Your task to perform on an android device: Open Reddit.com Image 0: 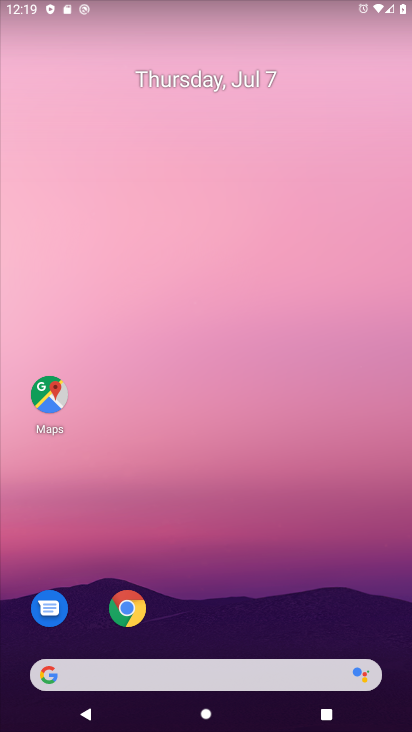
Step 0: click (133, 607)
Your task to perform on an android device: Open Reddit.com Image 1: 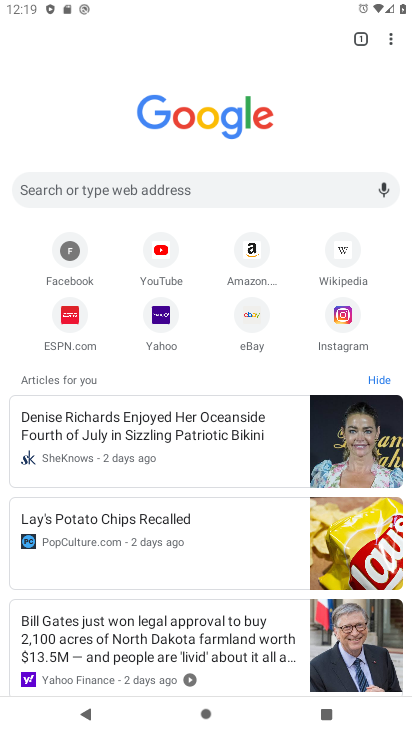
Step 1: click (157, 189)
Your task to perform on an android device: Open Reddit.com Image 2: 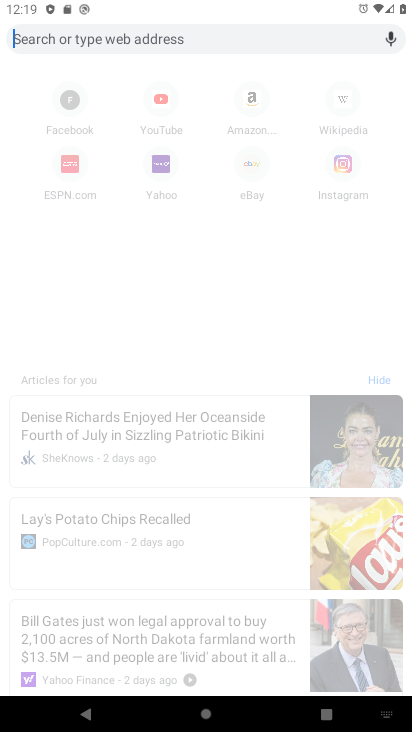
Step 2: type "reddit.com"
Your task to perform on an android device: Open Reddit.com Image 3: 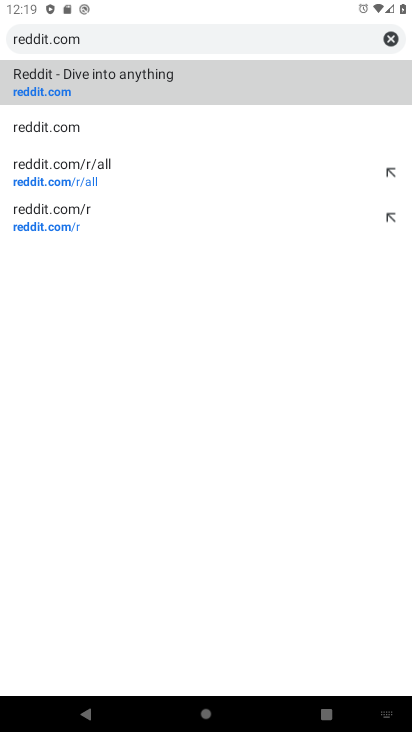
Step 3: click (57, 80)
Your task to perform on an android device: Open Reddit.com Image 4: 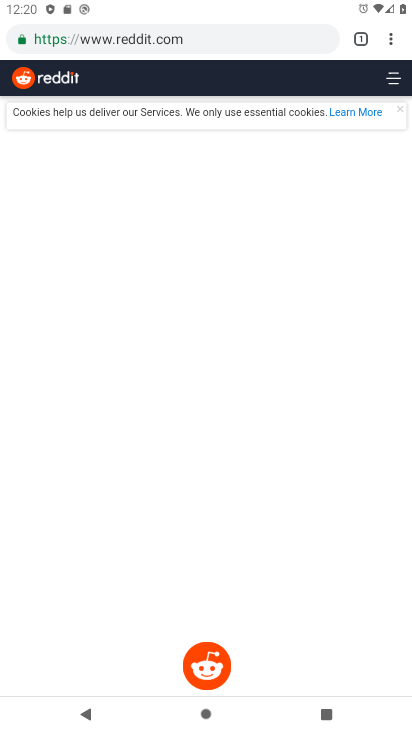
Step 4: task complete